Your task to perform on an android device: find which apps use the phone's location Image 0: 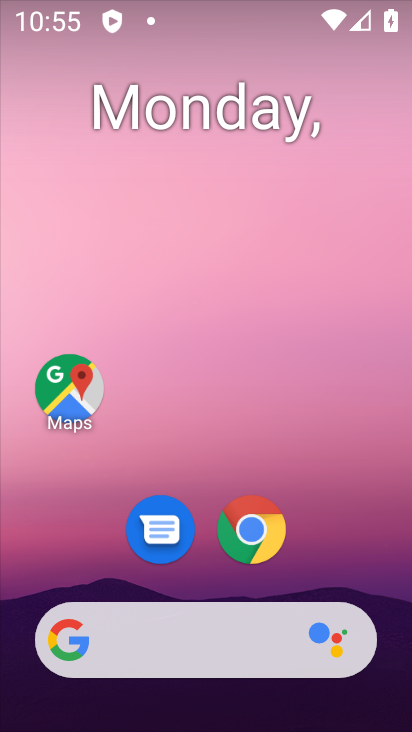
Step 0: drag from (301, 570) to (350, 160)
Your task to perform on an android device: find which apps use the phone's location Image 1: 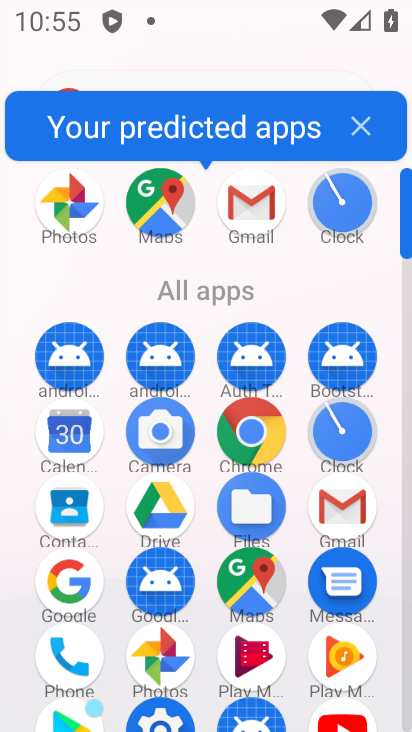
Step 1: drag from (229, 659) to (272, 227)
Your task to perform on an android device: find which apps use the phone's location Image 2: 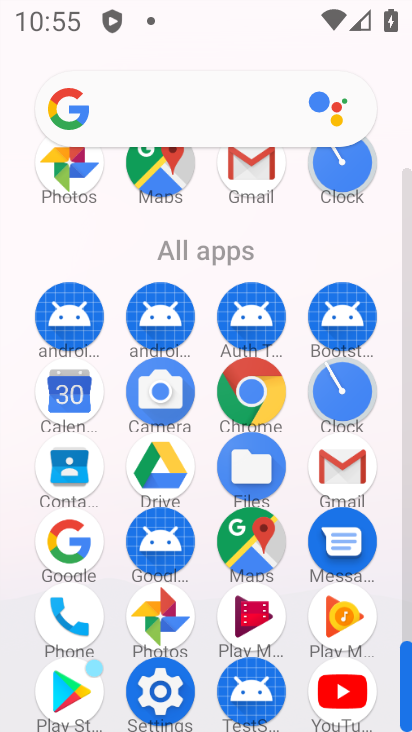
Step 2: drag from (167, 678) to (112, 230)
Your task to perform on an android device: find which apps use the phone's location Image 3: 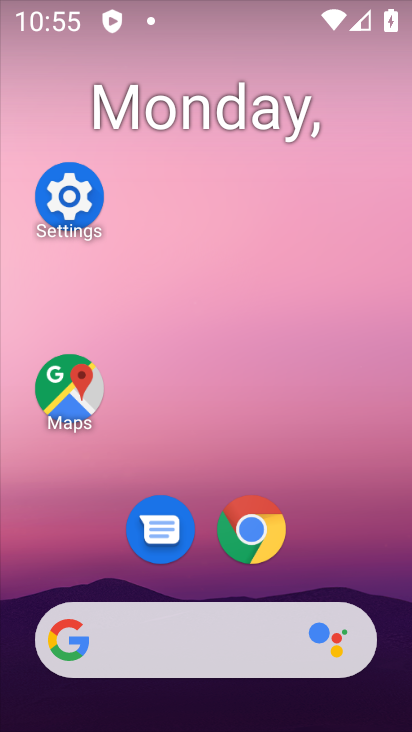
Step 3: click (82, 199)
Your task to perform on an android device: find which apps use the phone's location Image 4: 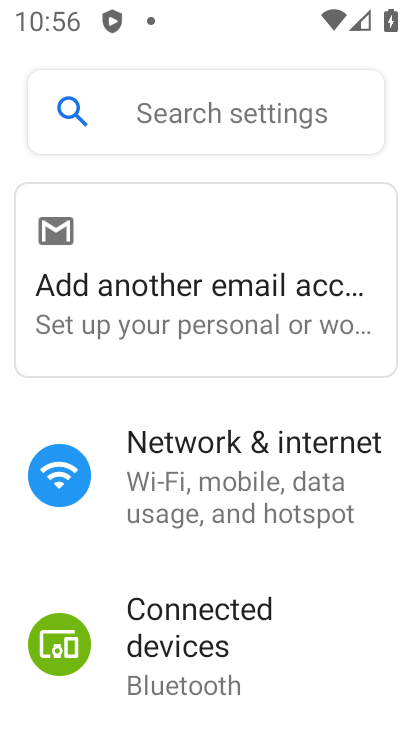
Step 4: drag from (209, 603) to (245, 232)
Your task to perform on an android device: find which apps use the phone's location Image 5: 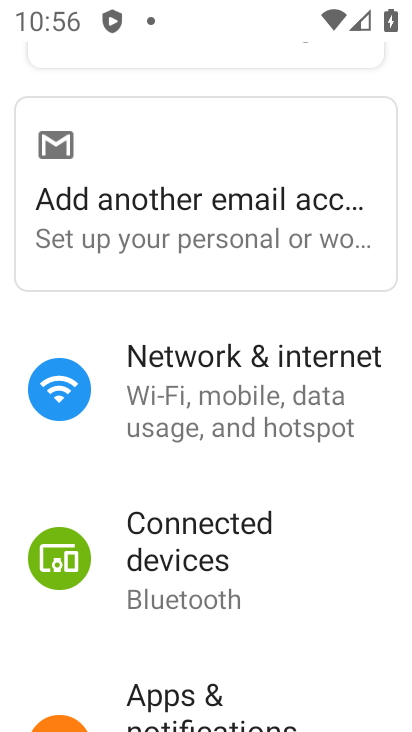
Step 5: drag from (273, 615) to (324, 216)
Your task to perform on an android device: find which apps use the phone's location Image 6: 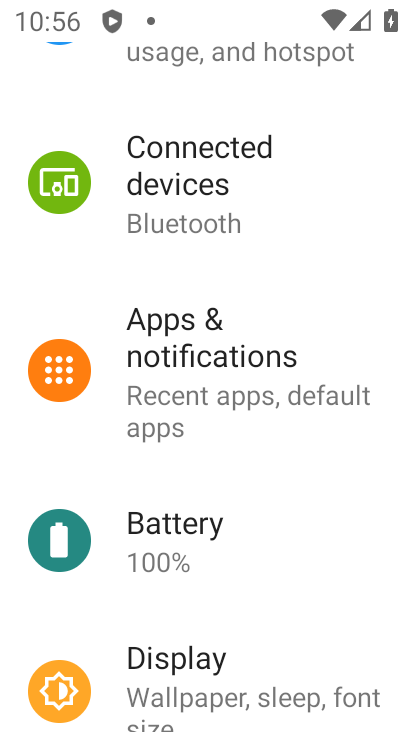
Step 6: drag from (259, 572) to (339, 214)
Your task to perform on an android device: find which apps use the phone's location Image 7: 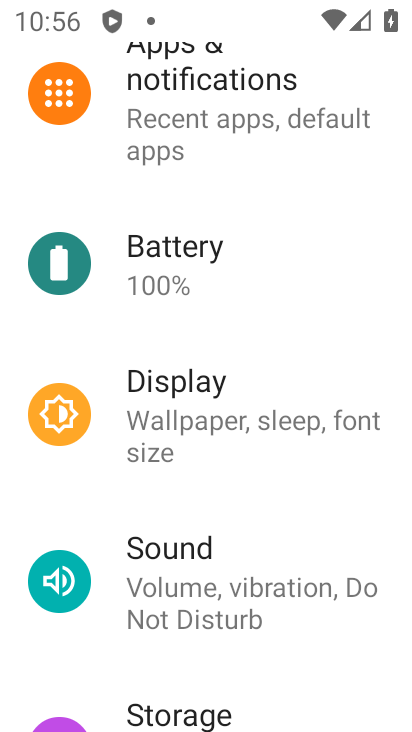
Step 7: drag from (254, 613) to (301, 181)
Your task to perform on an android device: find which apps use the phone's location Image 8: 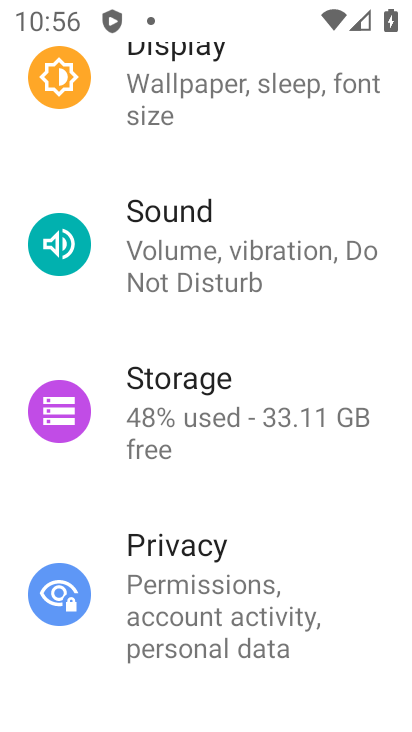
Step 8: drag from (238, 583) to (317, 227)
Your task to perform on an android device: find which apps use the phone's location Image 9: 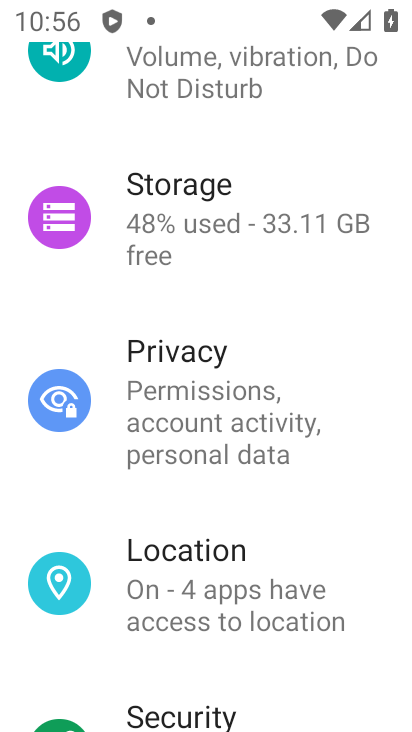
Step 9: click (260, 612)
Your task to perform on an android device: find which apps use the phone's location Image 10: 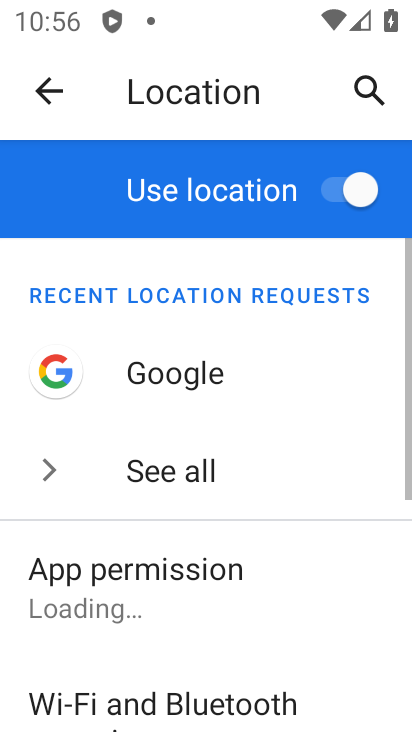
Step 10: task complete